Your task to perform on an android device: turn on javascript in the chrome app Image 0: 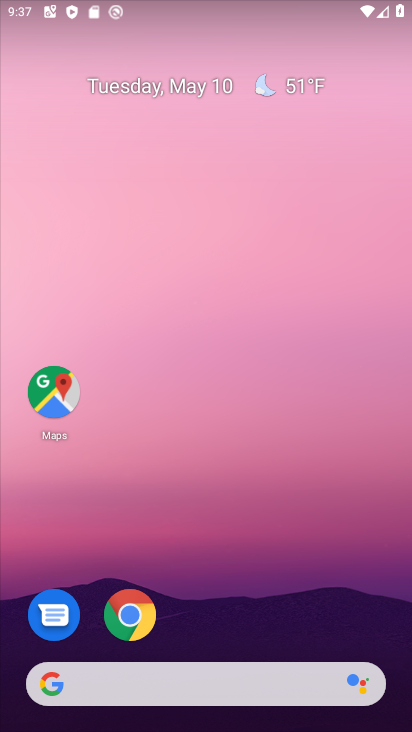
Step 0: click (139, 611)
Your task to perform on an android device: turn on javascript in the chrome app Image 1: 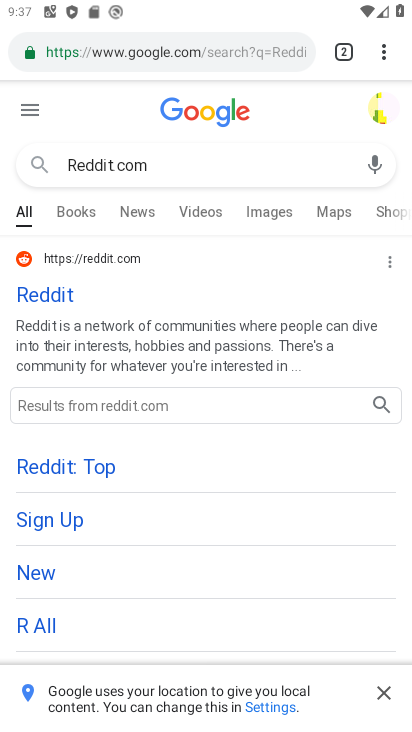
Step 1: click (379, 51)
Your task to perform on an android device: turn on javascript in the chrome app Image 2: 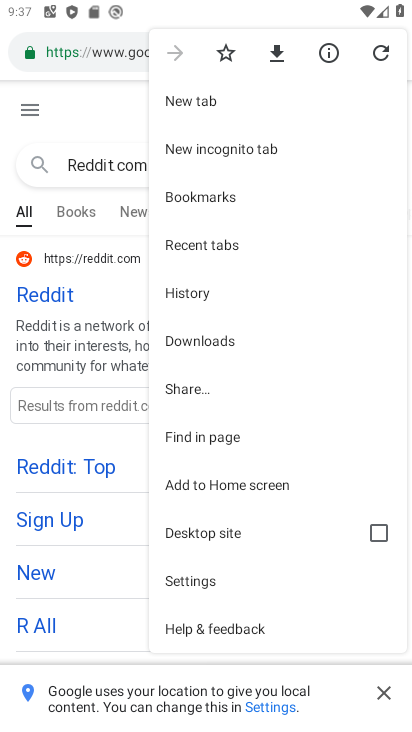
Step 2: click (213, 582)
Your task to perform on an android device: turn on javascript in the chrome app Image 3: 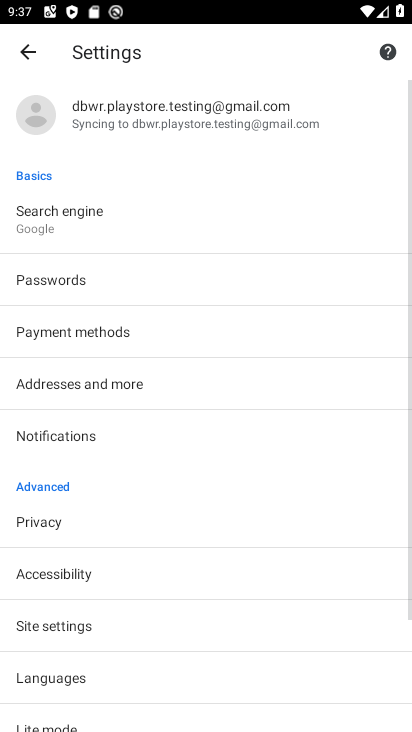
Step 3: click (111, 625)
Your task to perform on an android device: turn on javascript in the chrome app Image 4: 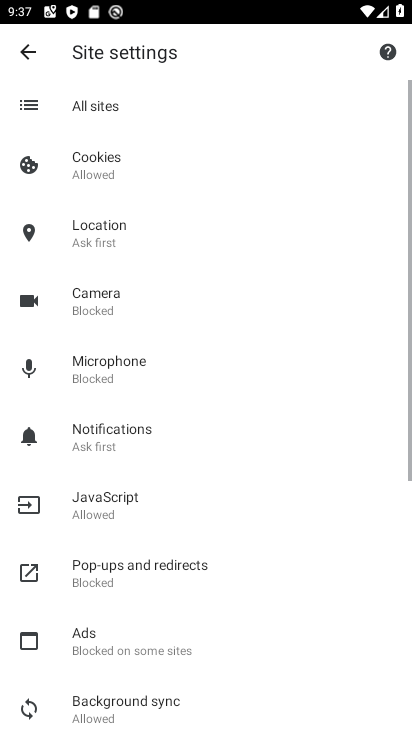
Step 4: click (137, 500)
Your task to perform on an android device: turn on javascript in the chrome app Image 5: 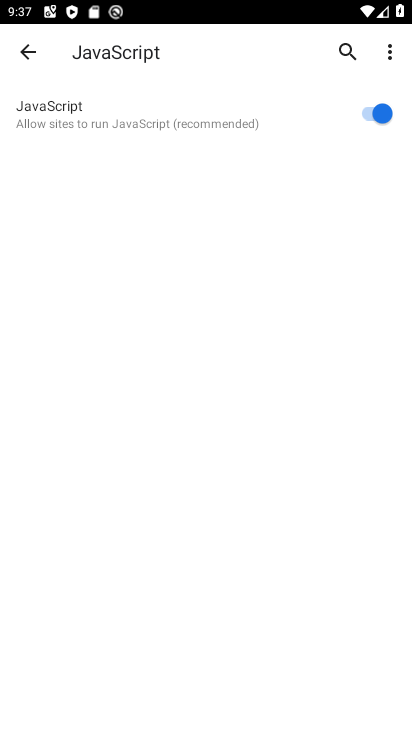
Step 5: task complete